Your task to perform on an android device: toggle javascript in the chrome app Image 0: 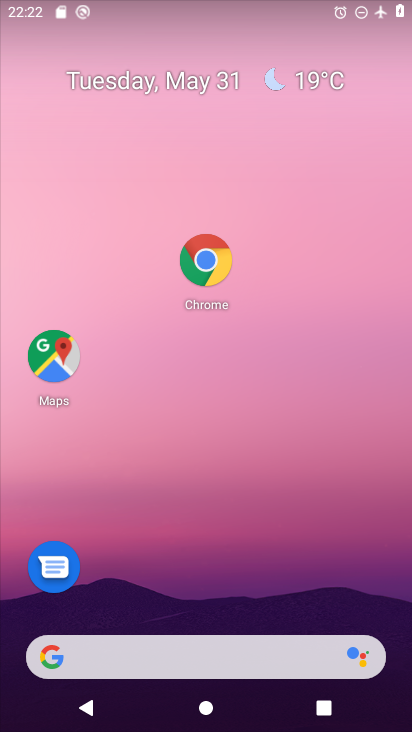
Step 0: task complete